Your task to perform on an android device: See recent photos Image 0: 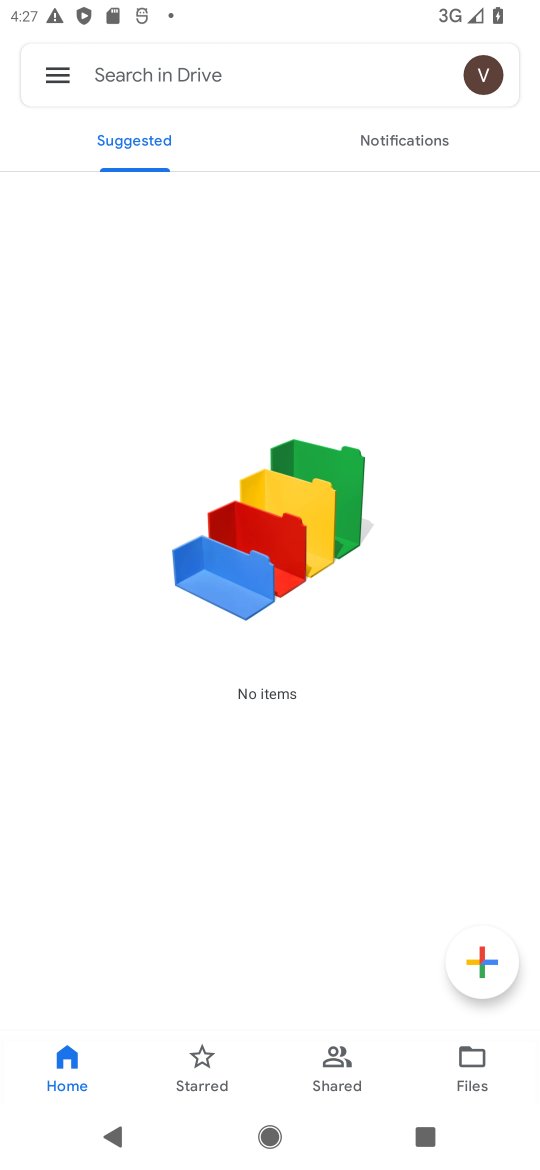
Step 0: task complete